Your task to perform on an android device: turn on data saver in the chrome app Image 0: 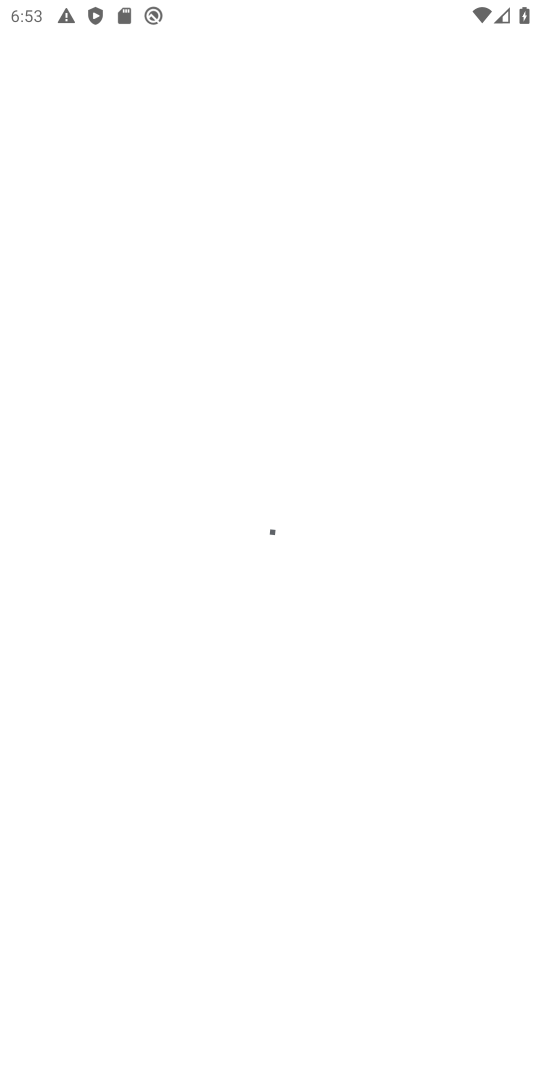
Step 0: press home button
Your task to perform on an android device: turn on data saver in the chrome app Image 1: 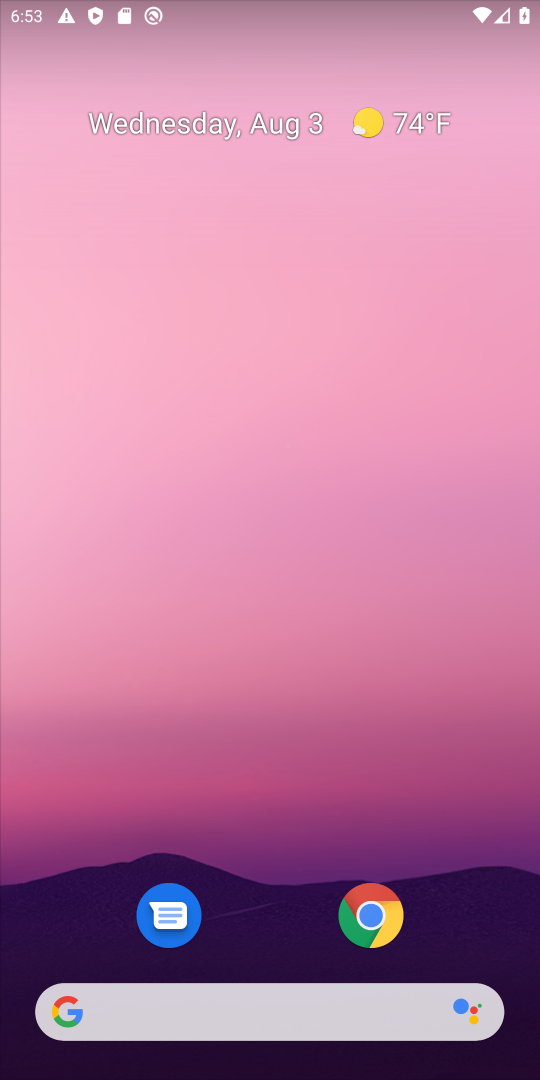
Step 1: drag from (428, 1029) to (276, 403)
Your task to perform on an android device: turn on data saver in the chrome app Image 2: 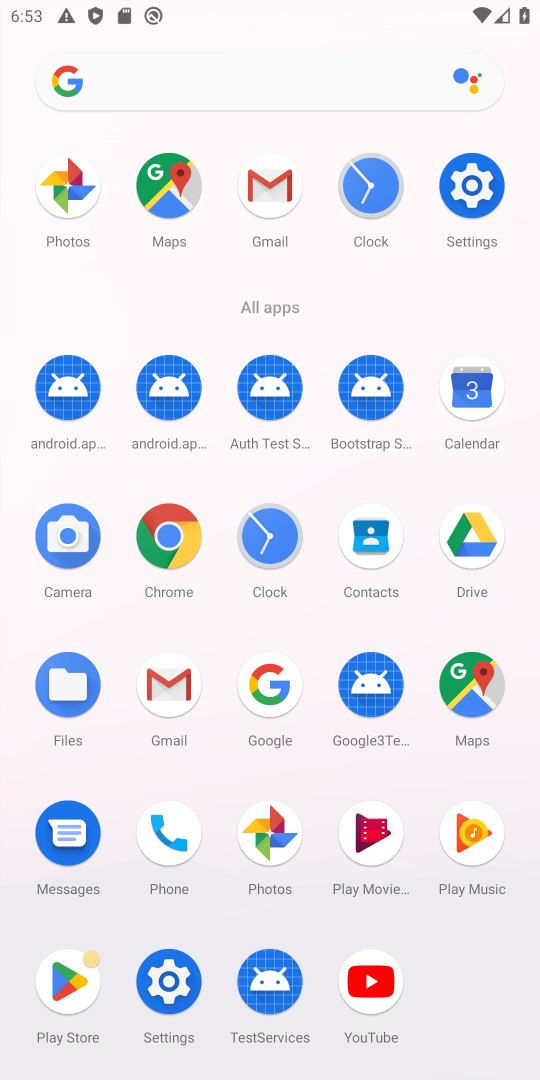
Step 2: click (279, 530)
Your task to perform on an android device: turn on data saver in the chrome app Image 3: 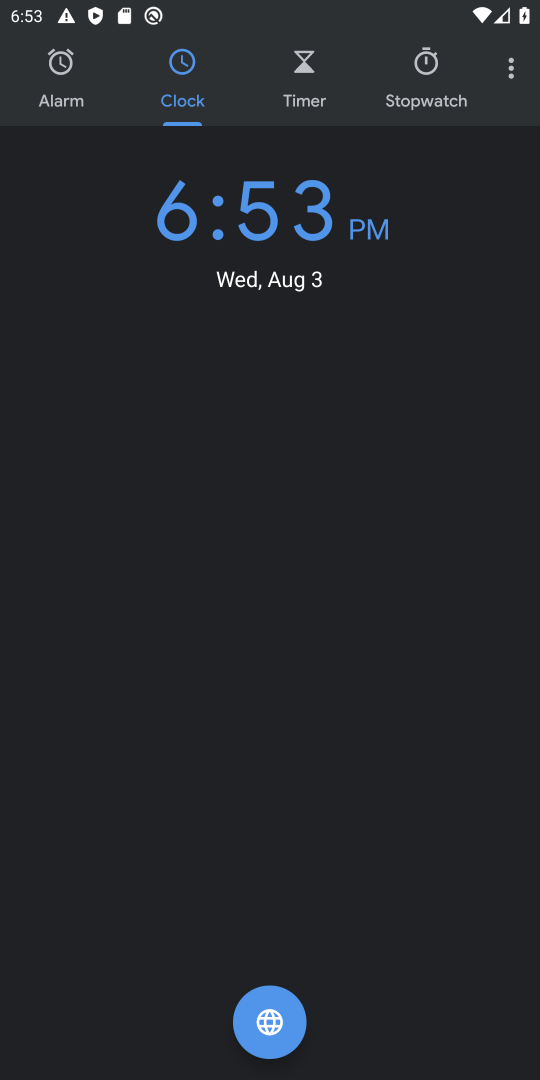
Step 3: press home button
Your task to perform on an android device: turn on data saver in the chrome app Image 4: 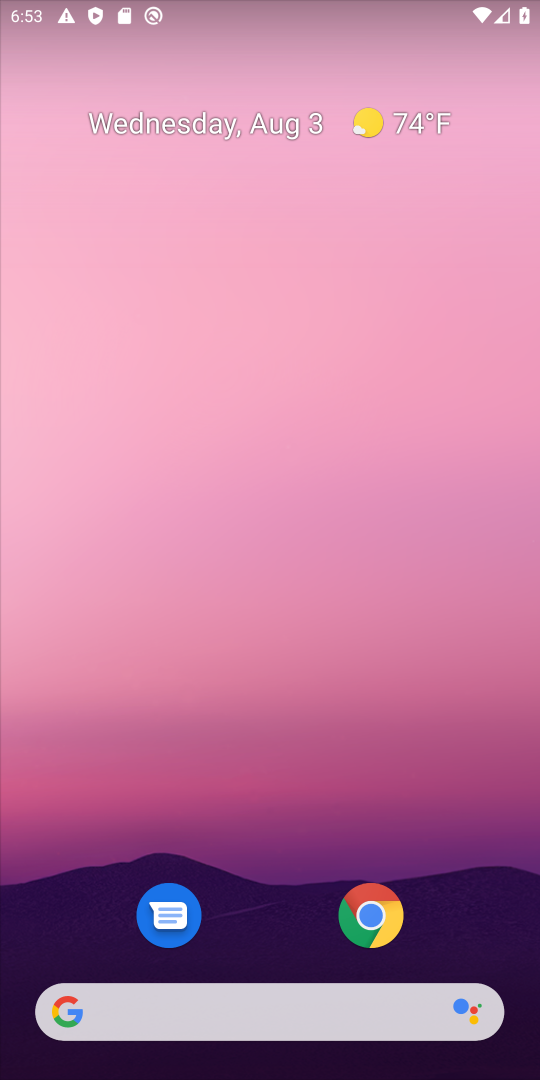
Step 4: click (367, 923)
Your task to perform on an android device: turn on data saver in the chrome app Image 5: 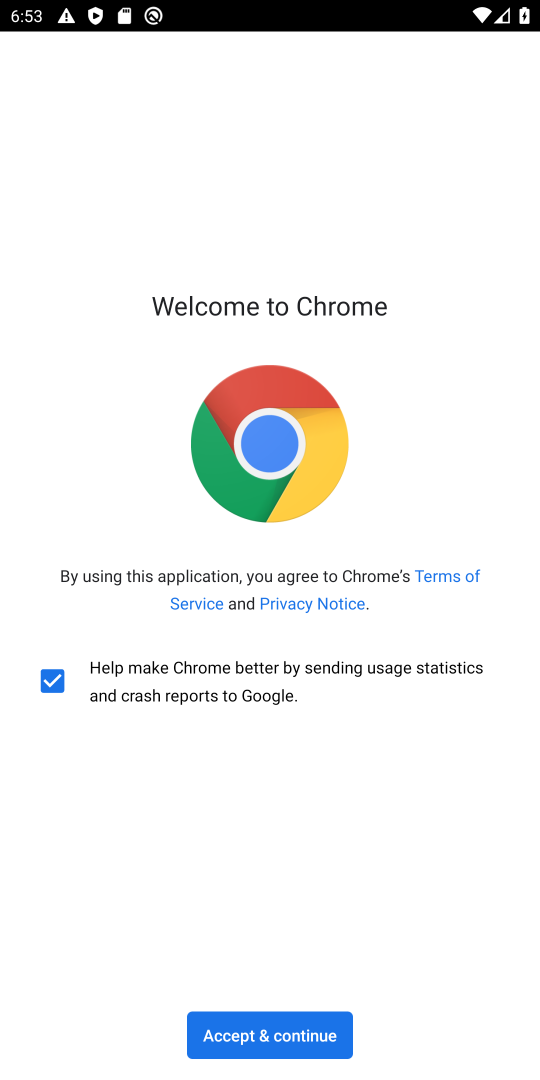
Step 5: click (269, 1015)
Your task to perform on an android device: turn on data saver in the chrome app Image 6: 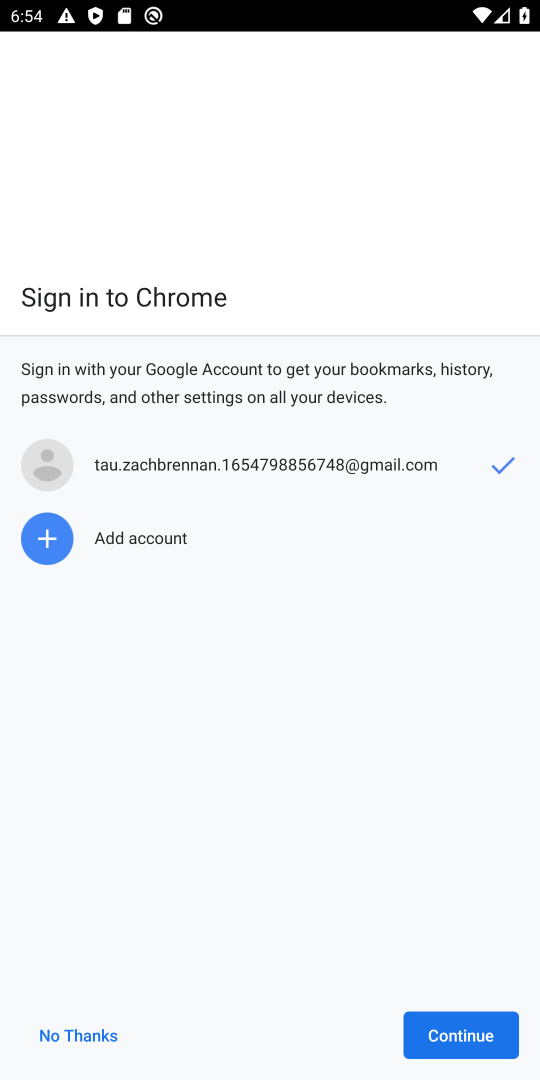
Step 6: click (474, 1042)
Your task to perform on an android device: turn on data saver in the chrome app Image 7: 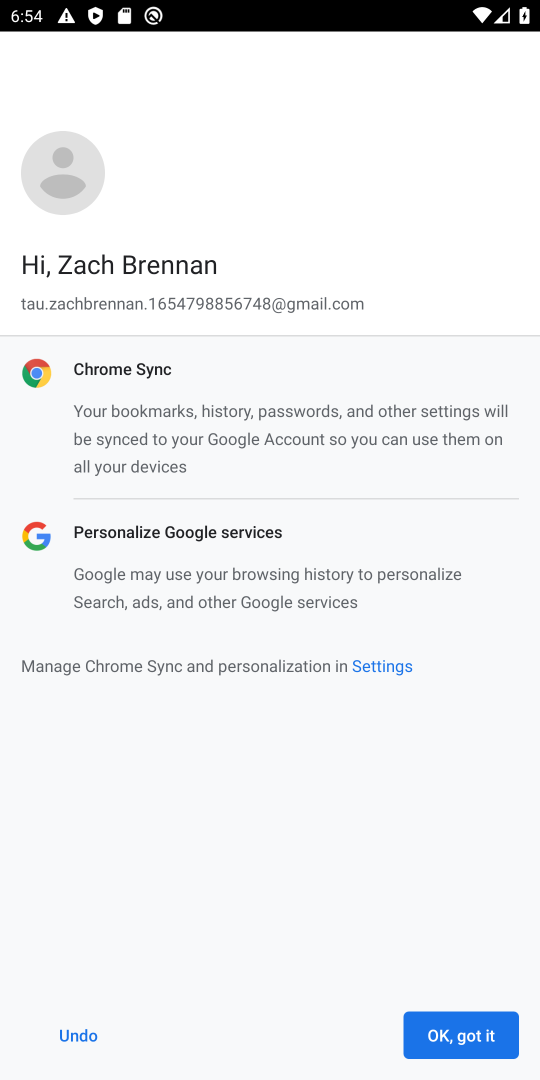
Step 7: click (474, 1042)
Your task to perform on an android device: turn on data saver in the chrome app Image 8: 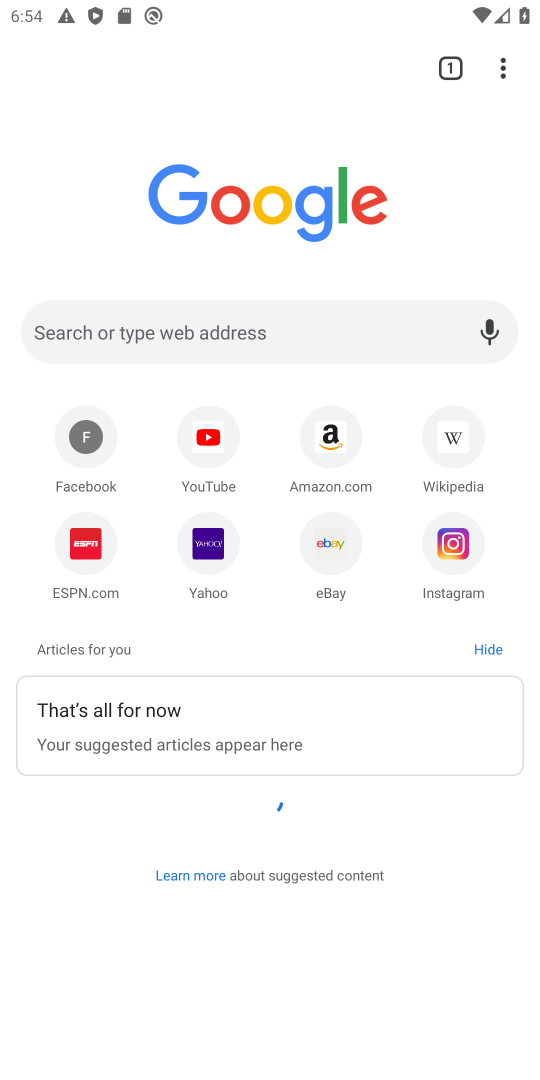
Step 8: click (515, 80)
Your task to perform on an android device: turn on data saver in the chrome app Image 9: 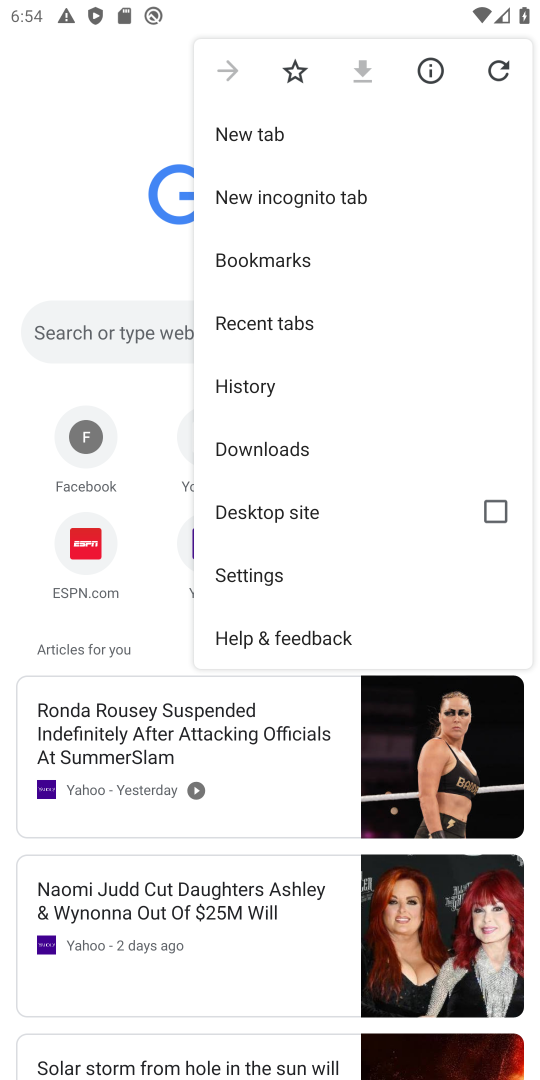
Step 9: click (285, 583)
Your task to perform on an android device: turn on data saver in the chrome app Image 10: 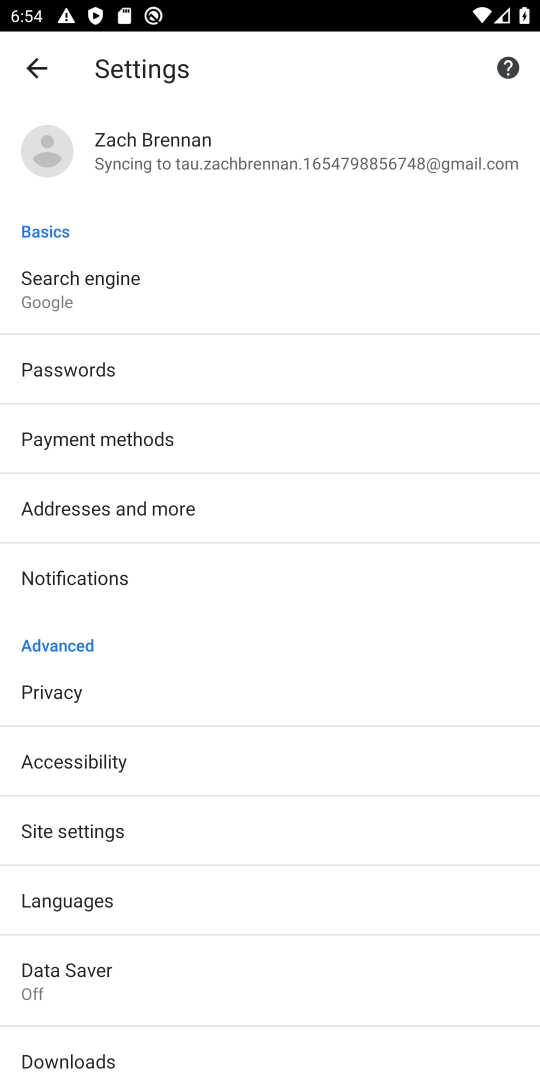
Step 10: click (182, 977)
Your task to perform on an android device: turn on data saver in the chrome app Image 11: 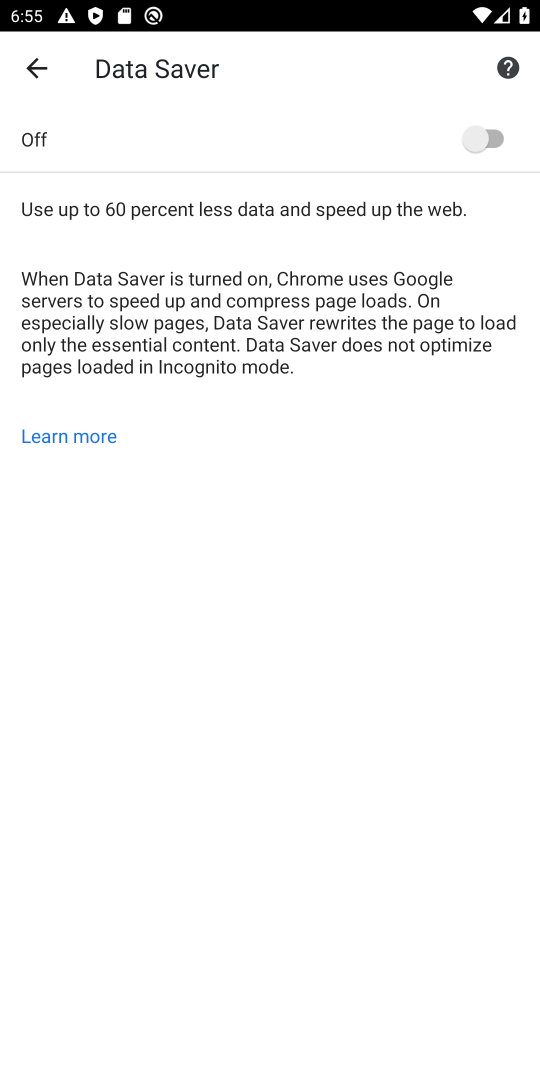
Step 11: click (475, 127)
Your task to perform on an android device: turn on data saver in the chrome app Image 12: 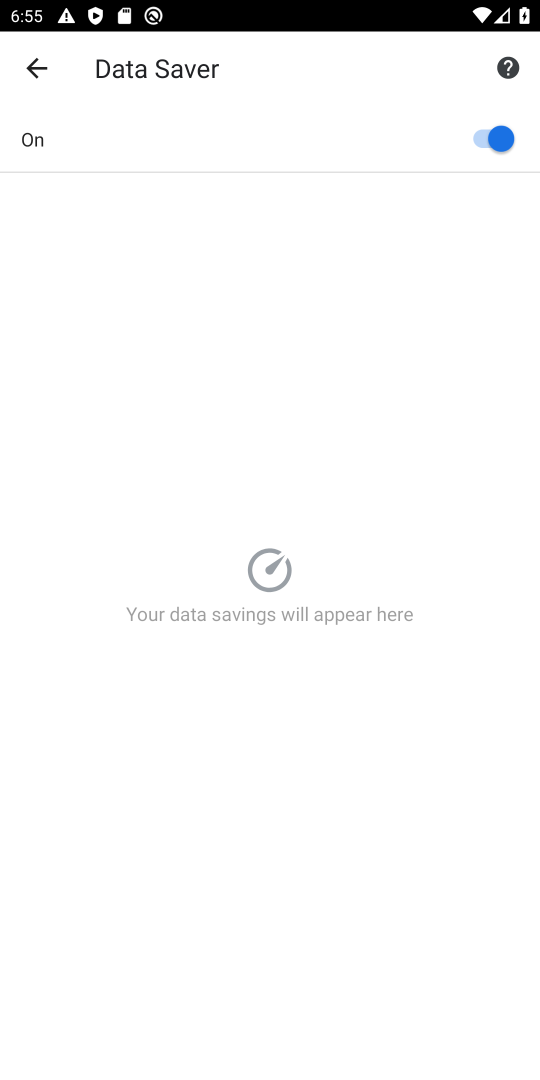
Step 12: task complete